Your task to perform on an android device: open wifi settings Image 0: 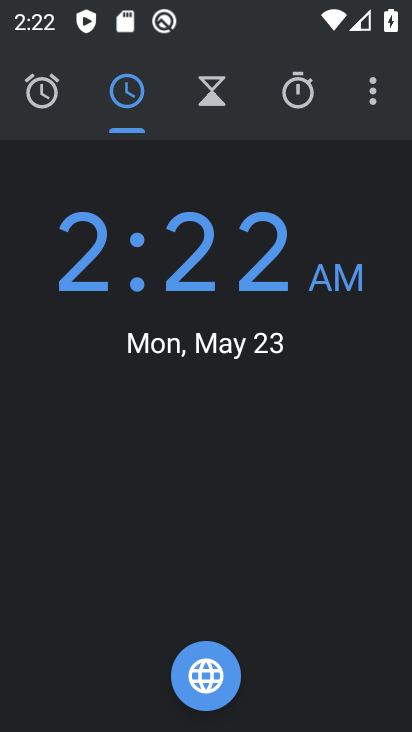
Step 0: press back button
Your task to perform on an android device: open wifi settings Image 1: 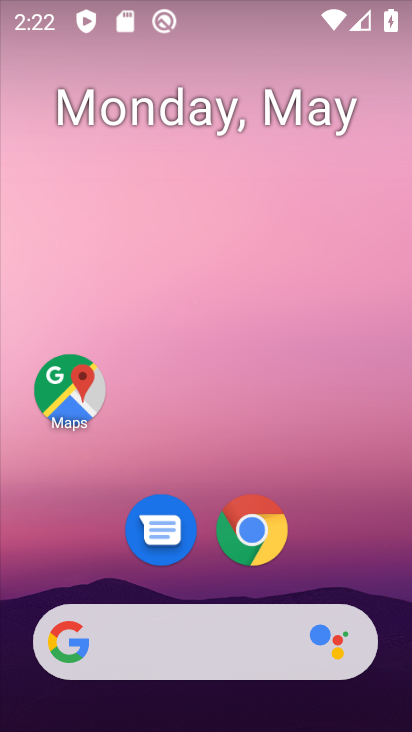
Step 1: drag from (88, 18) to (156, 479)
Your task to perform on an android device: open wifi settings Image 2: 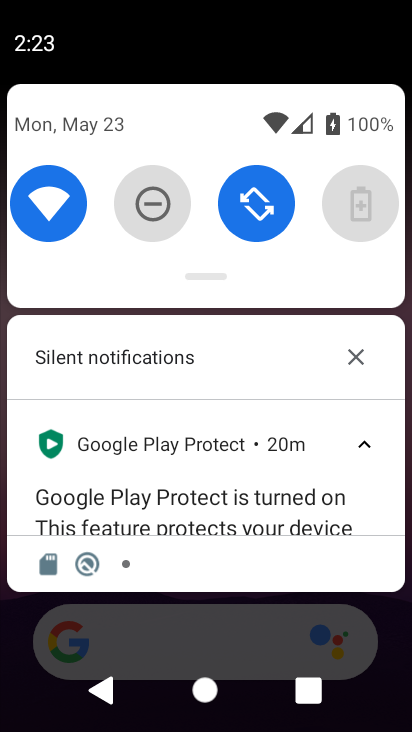
Step 2: click (23, 188)
Your task to perform on an android device: open wifi settings Image 3: 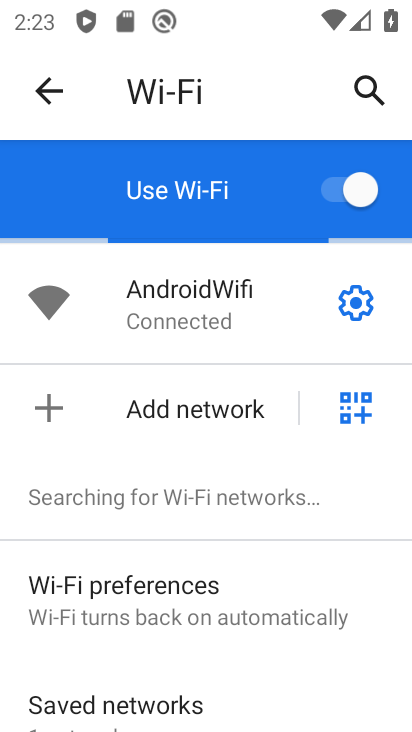
Step 3: task complete